Your task to perform on an android device: Go to privacy settings Image 0: 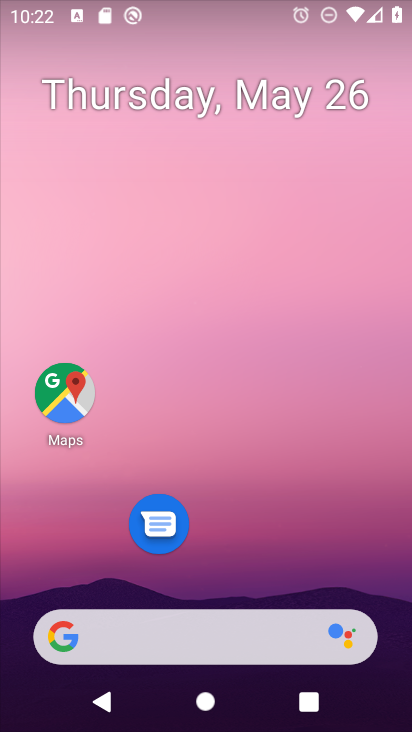
Step 0: drag from (255, 556) to (243, 44)
Your task to perform on an android device: Go to privacy settings Image 1: 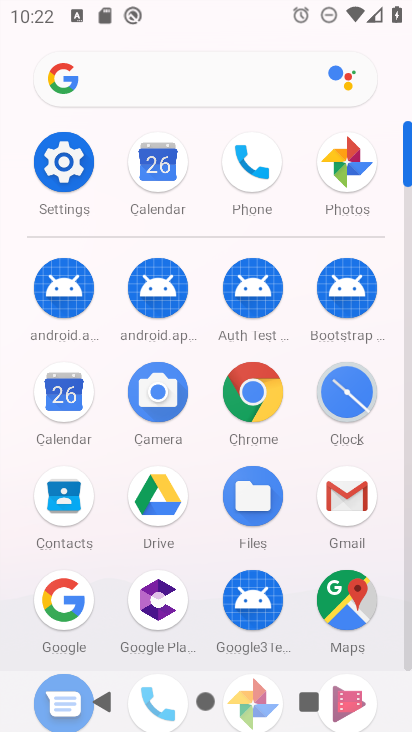
Step 1: click (75, 161)
Your task to perform on an android device: Go to privacy settings Image 2: 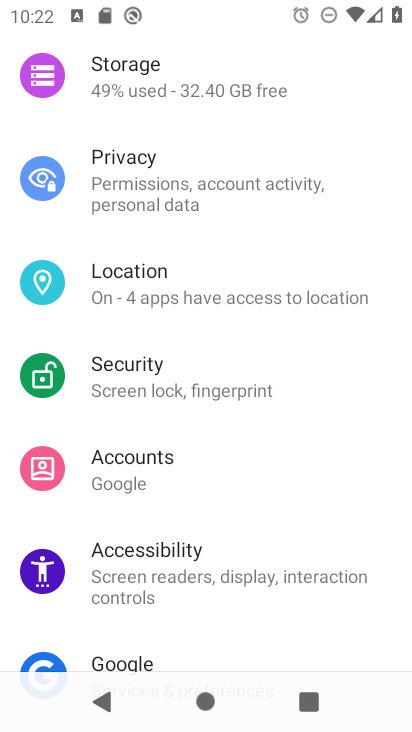
Step 2: click (213, 183)
Your task to perform on an android device: Go to privacy settings Image 3: 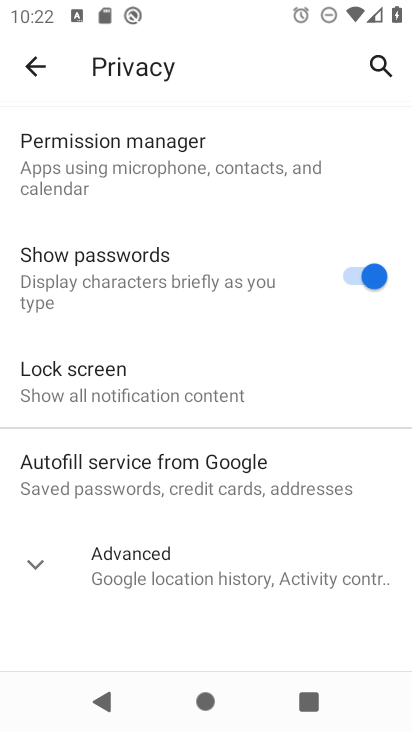
Step 3: task complete